Your task to perform on an android device: turn off notifications settings in the gmail app Image 0: 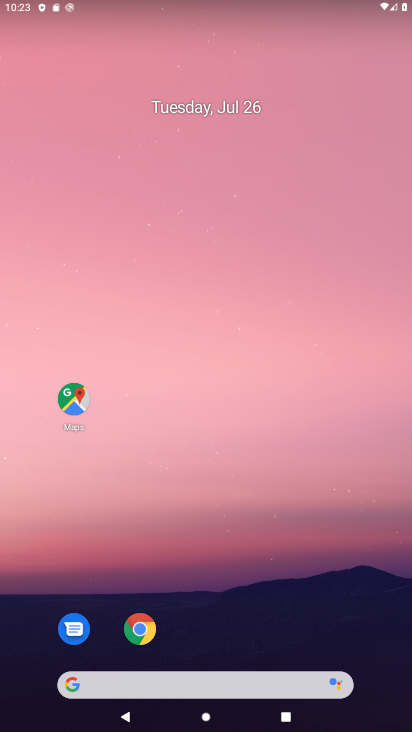
Step 0: drag from (332, 624) to (121, 0)
Your task to perform on an android device: turn off notifications settings in the gmail app Image 1: 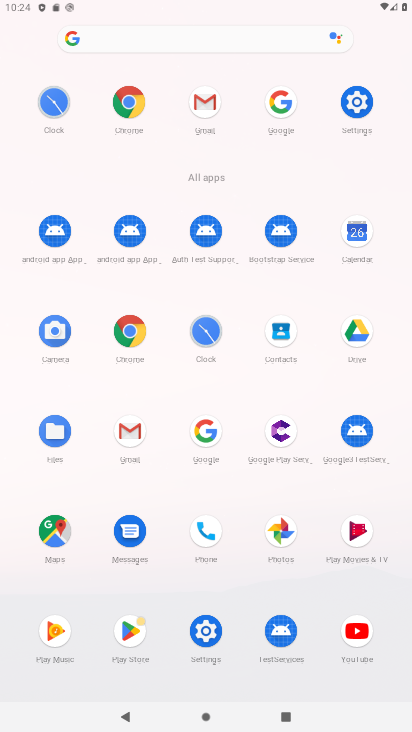
Step 1: click (131, 447)
Your task to perform on an android device: turn off notifications settings in the gmail app Image 2: 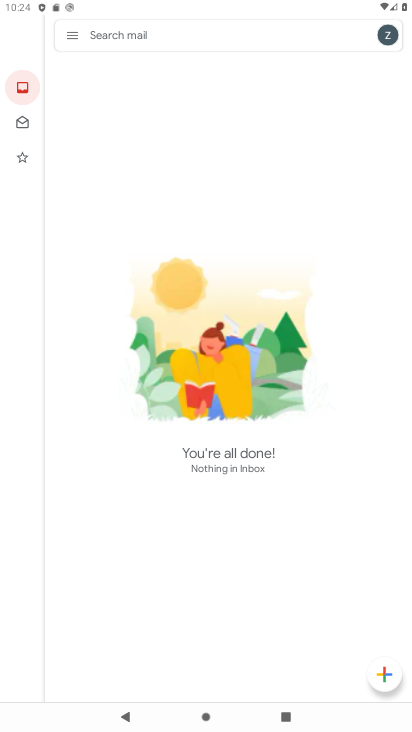
Step 2: click (79, 30)
Your task to perform on an android device: turn off notifications settings in the gmail app Image 3: 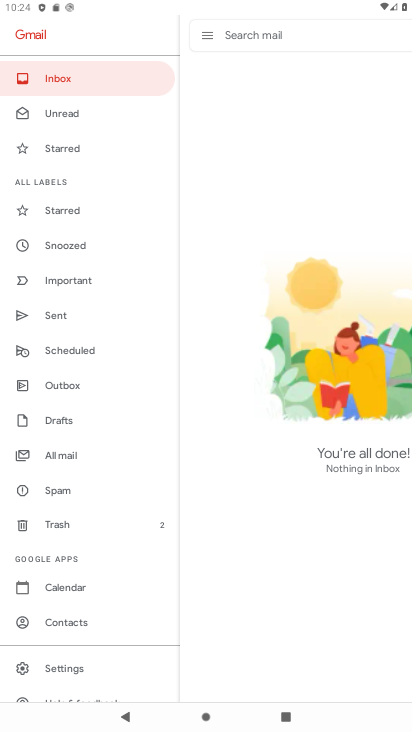
Step 3: click (79, 665)
Your task to perform on an android device: turn off notifications settings in the gmail app Image 4: 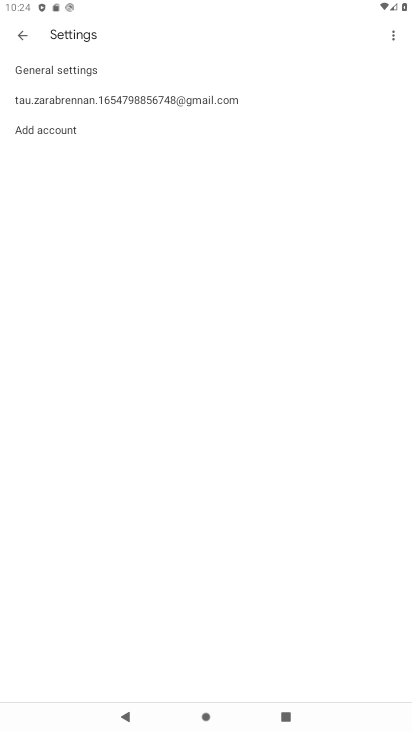
Step 4: click (118, 103)
Your task to perform on an android device: turn off notifications settings in the gmail app Image 5: 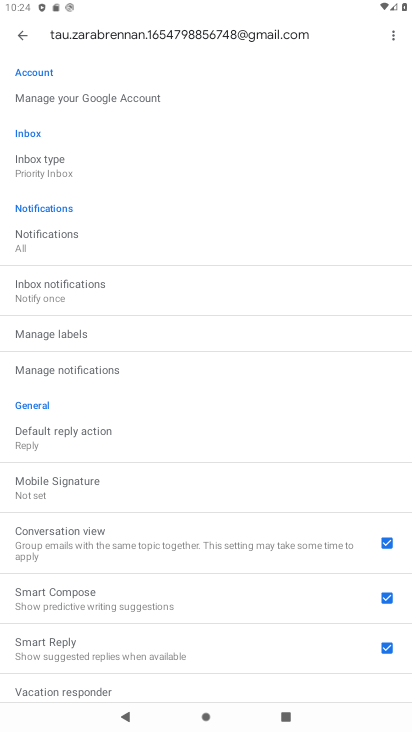
Step 5: click (54, 254)
Your task to perform on an android device: turn off notifications settings in the gmail app Image 6: 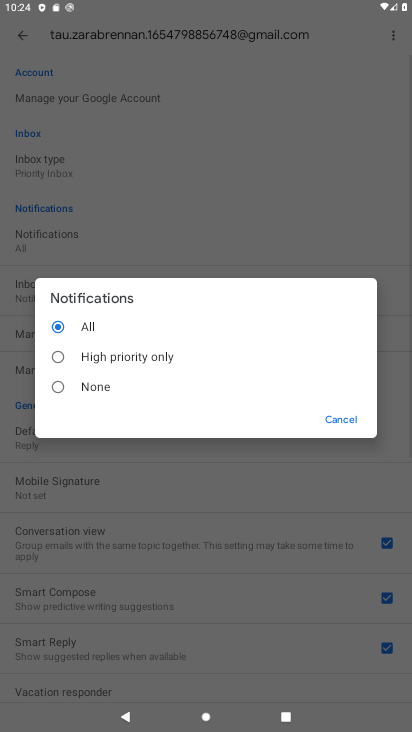
Step 6: click (65, 394)
Your task to perform on an android device: turn off notifications settings in the gmail app Image 7: 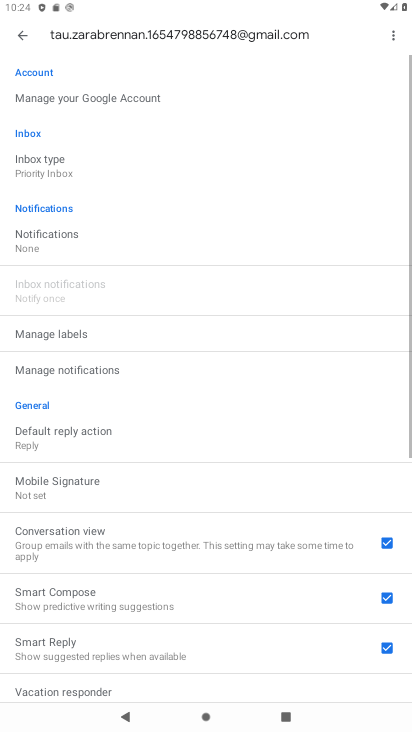
Step 7: task complete